Your task to perform on an android device: Open location settings Image 0: 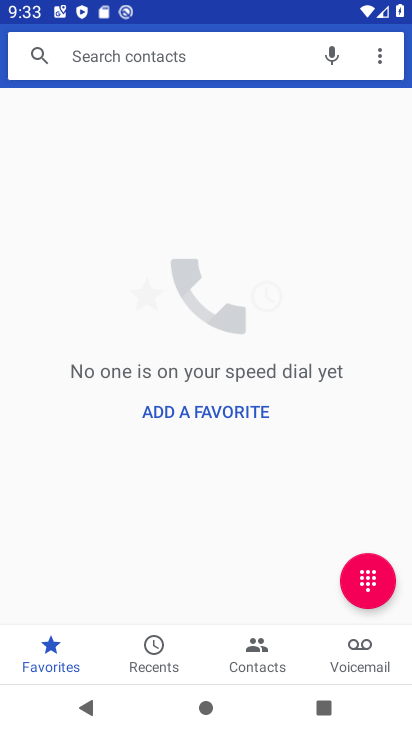
Step 0: press home button
Your task to perform on an android device: Open location settings Image 1: 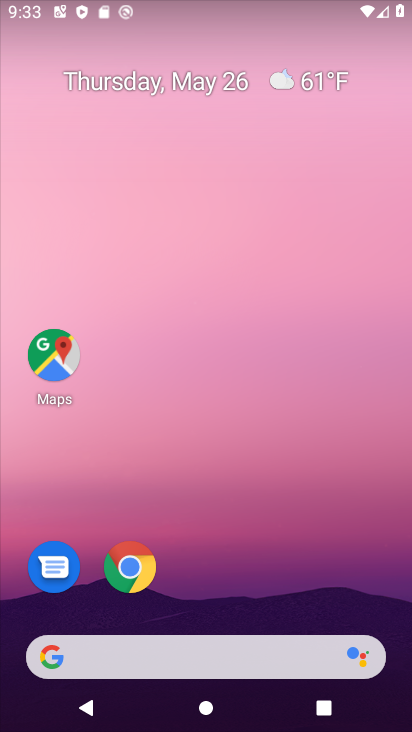
Step 1: drag from (376, 588) to (408, 82)
Your task to perform on an android device: Open location settings Image 2: 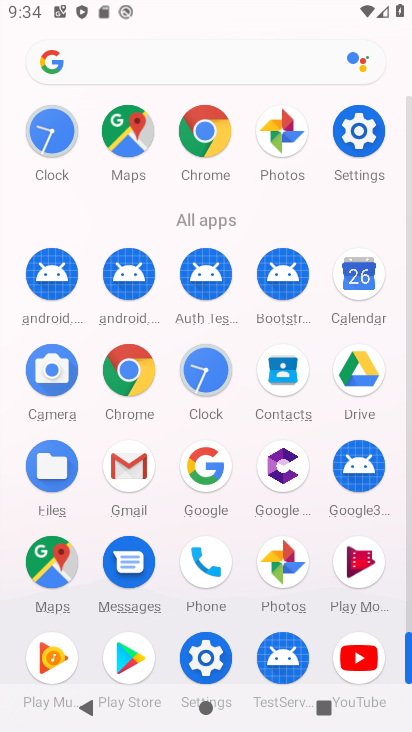
Step 2: click (212, 658)
Your task to perform on an android device: Open location settings Image 3: 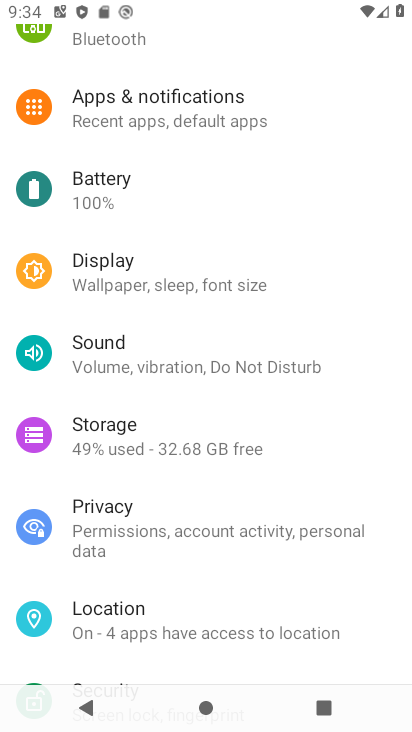
Step 3: drag from (231, 584) to (262, 418)
Your task to perform on an android device: Open location settings Image 4: 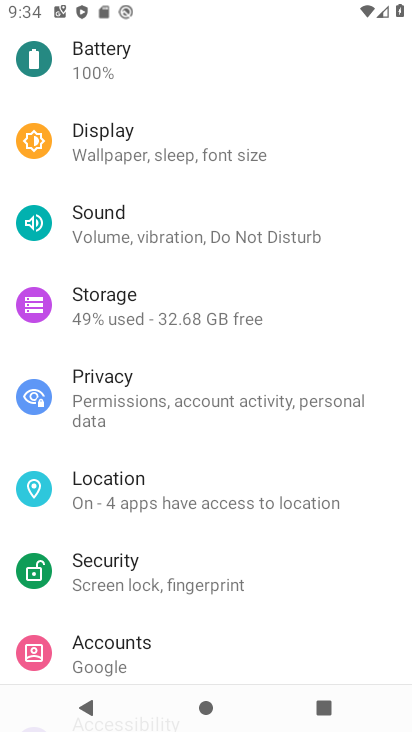
Step 4: click (170, 491)
Your task to perform on an android device: Open location settings Image 5: 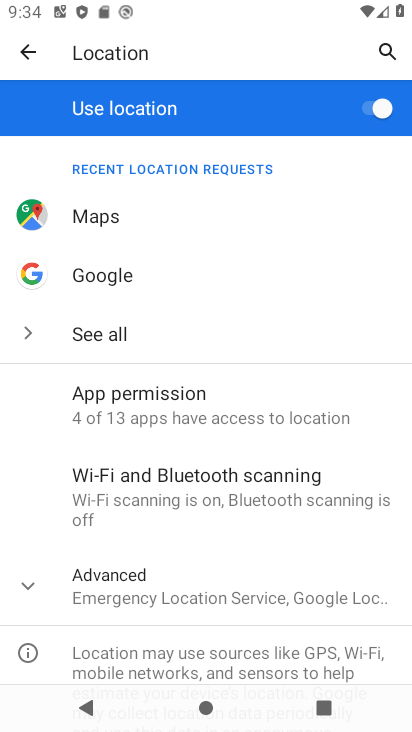
Step 5: task complete